Your task to perform on an android device: Search for vegetarian restaurants on Maps Image 0: 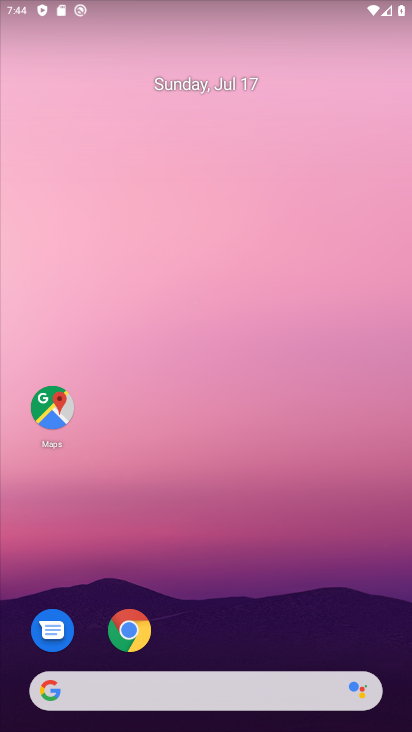
Step 0: click (53, 413)
Your task to perform on an android device: Search for vegetarian restaurants on Maps Image 1: 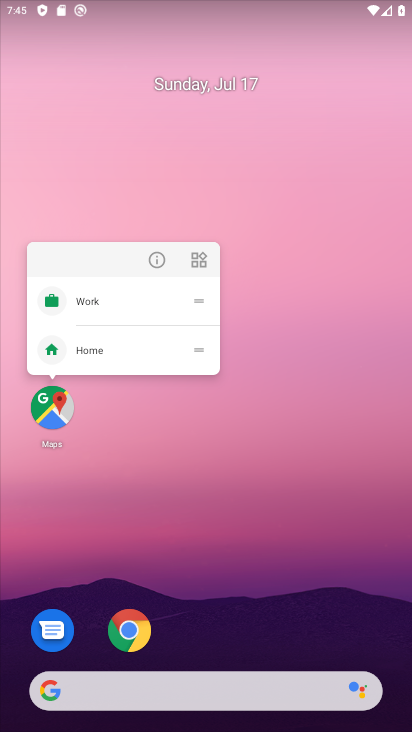
Step 1: click (53, 418)
Your task to perform on an android device: Search for vegetarian restaurants on Maps Image 2: 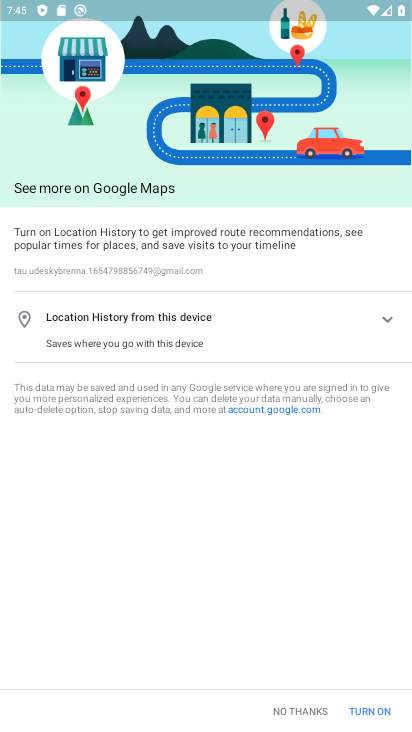
Step 2: click (364, 707)
Your task to perform on an android device: Search for vegetarian restaurants on Maps Image 3: 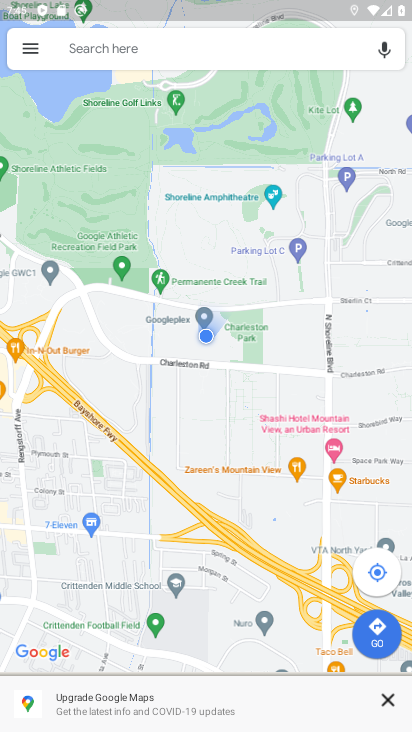
Step 3: click (190, 49)
Your task to perform on an android device: Search for vegetarian restaurants on Maps Image 4: 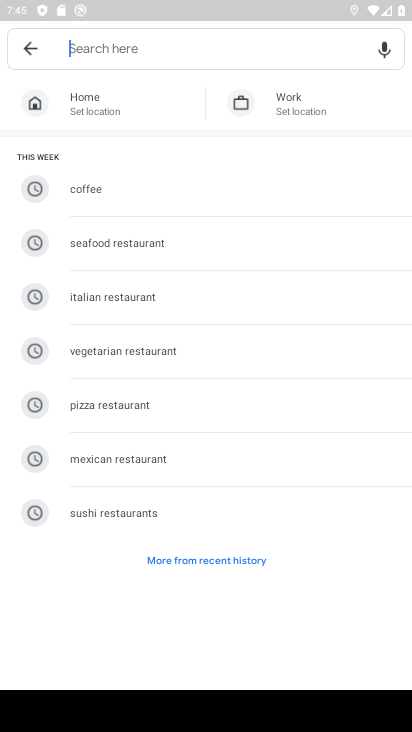
Step 4: click (150, 355)
Your task to perform on an android device: Search for vegetarian restaurants on Maps Image 5: 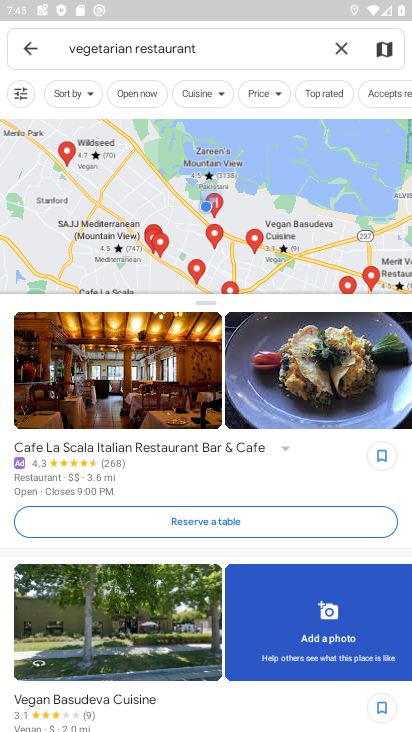
Step 5: task complete